Your task to perform on an android device: Search for Italian restaurants on Maps Image 0: 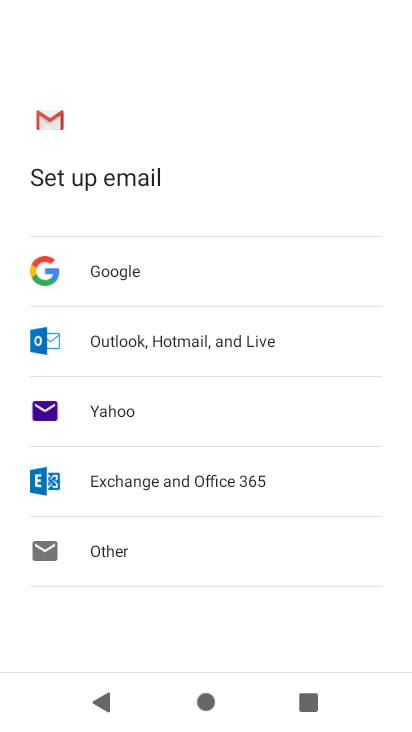
Step 0: press home button
Your task to perform on an android device: Search for Italian restaurants on Maps Image 1: 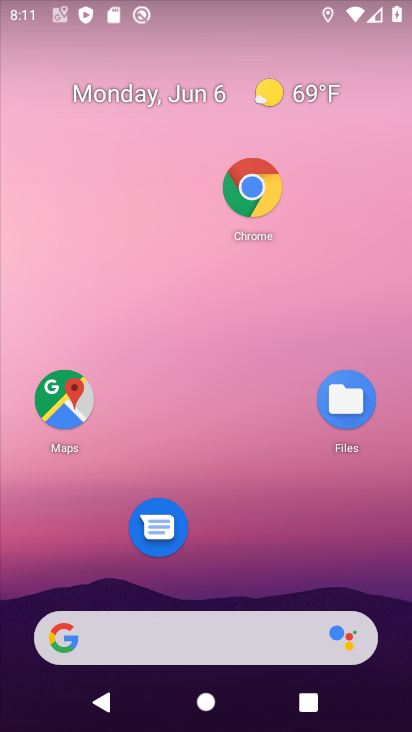
Step 1: click (63, 411)
Your task to perform on an android device: Search for Italian restaurants on Maps Image 2: 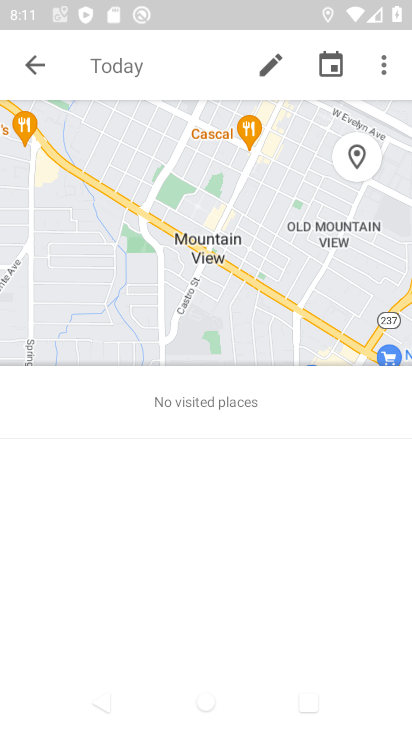
Step 2: press back button
Your task to perform on an android device: Search for Italian restaurants on Maps Image 3: 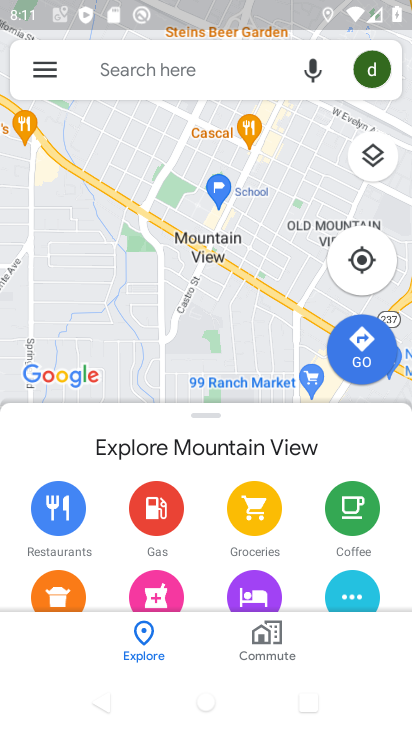
Step 3: click (152, 69)
Your task to perform on an android device: Search for Italian restaurants on Maps Image 4: 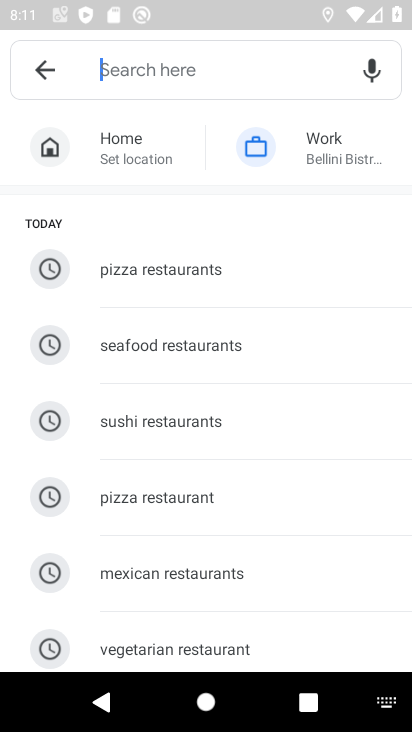
Step 4: drag from (170, 618) to (174, 376)
Your task to perform on an android device: Search for Italian restaurants on Maps Image 5: 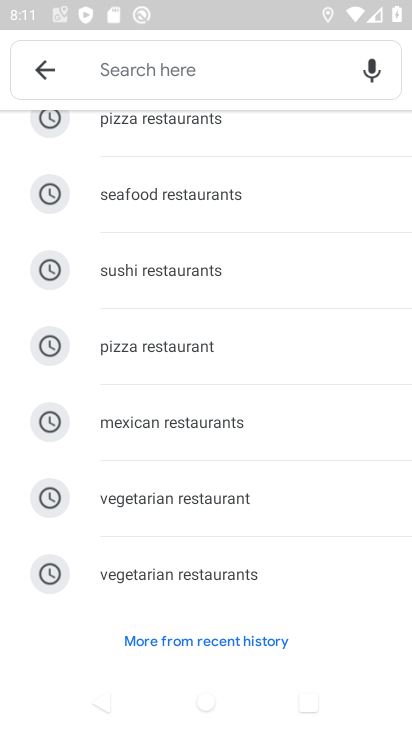
Step 5: click (180, 73)
Your task to perform on an android device: Search for Italian restaurants on Maps Image 6: 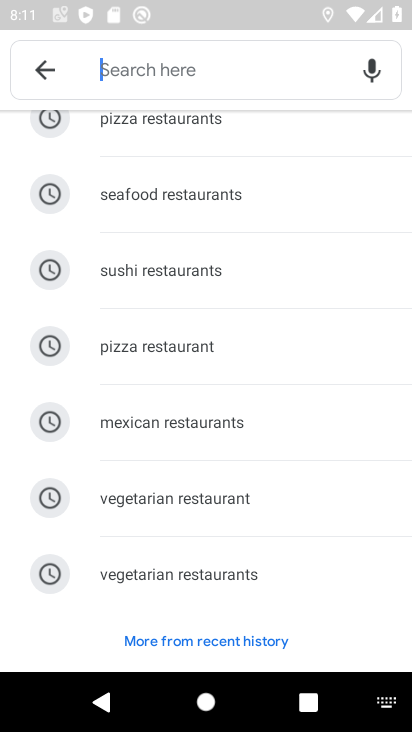
Step 6: type "italian restaurent"
Your task to perform on an android device: Search for Italian restaurants on Maps Image 7: 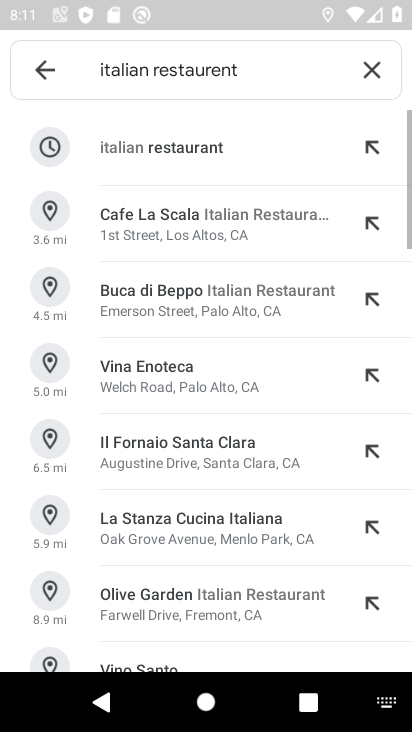
Step 7: click (126, 151)
Your task to perform on an android device: Search for Italian restaurants on Maps Image 8: 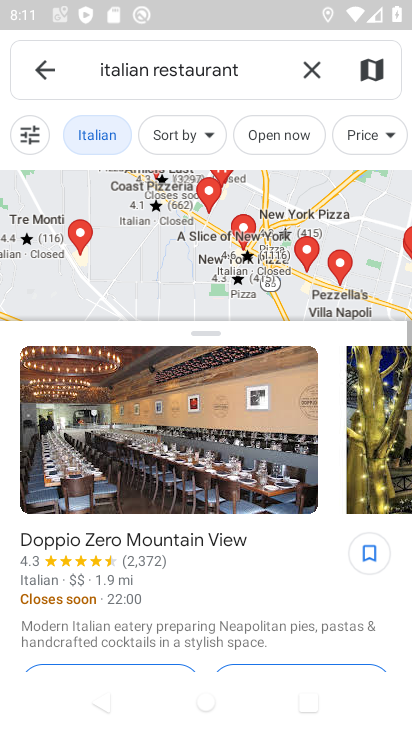
Step 8: task complete